Your task to perform on an android device: add a contact in the contacts app Image 0: 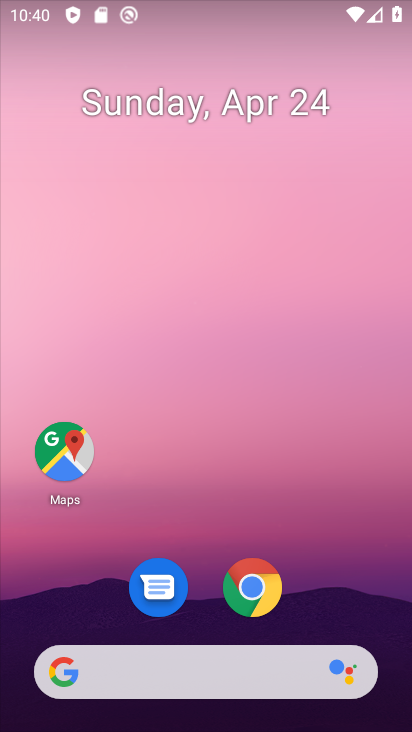
Step 0: drag from (322, 490) to (276, 168)
Your task to perform on an android device: add a contact in the contacts app Image 1: 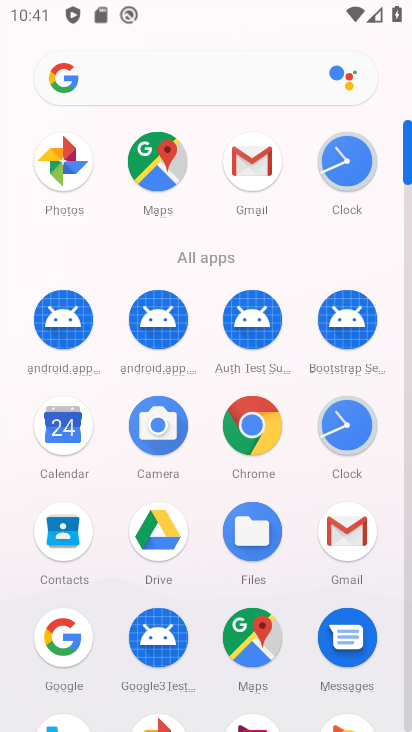
Step 1: click (72, 514)
Your task to perform on an android device: add a contact in the contacts app Image 2: 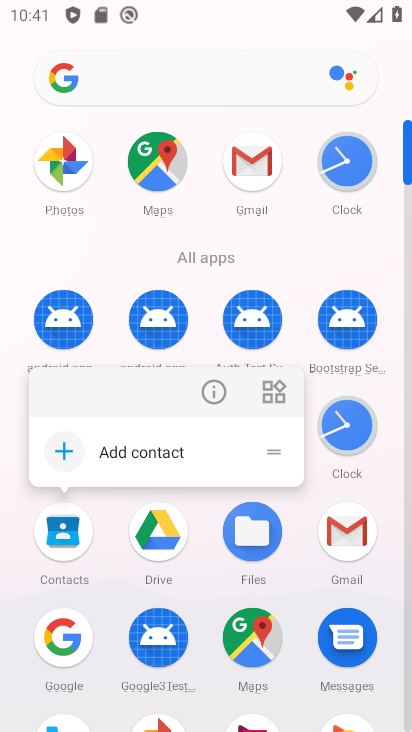
Step 2: click (61, 530)
Your task to perform on an android device: add a contact in the contacts app Image 3: 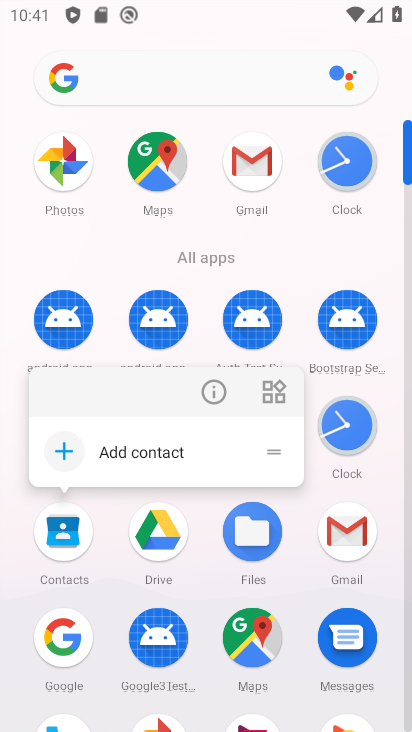
Step 3: click (74, 526)
Your task to perform on an android device: add a contact in the contacts app Image 4: 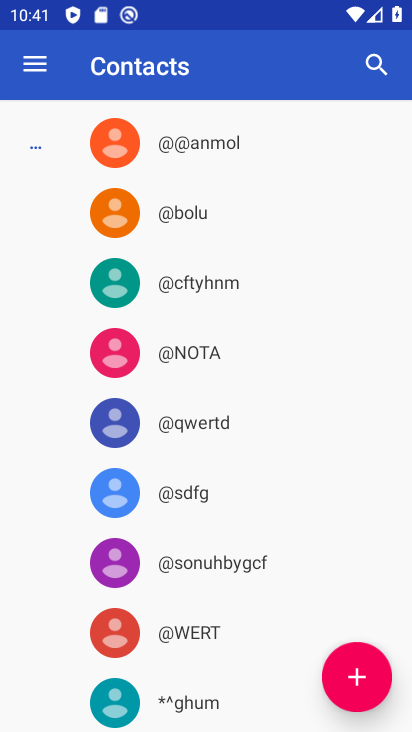
Step 4: click (348, 666)
Your task to perform on an android device: add a contact in the contacts app Image 5: 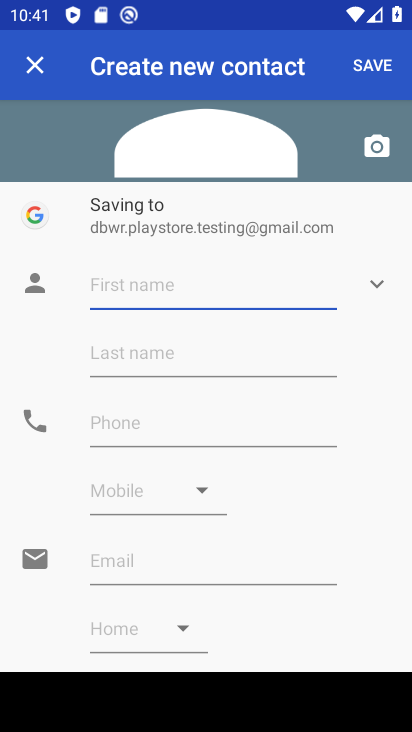
Step 5: click (250, 290)
Your task to perform on an android device: add a contact in the contacts app Image 6: 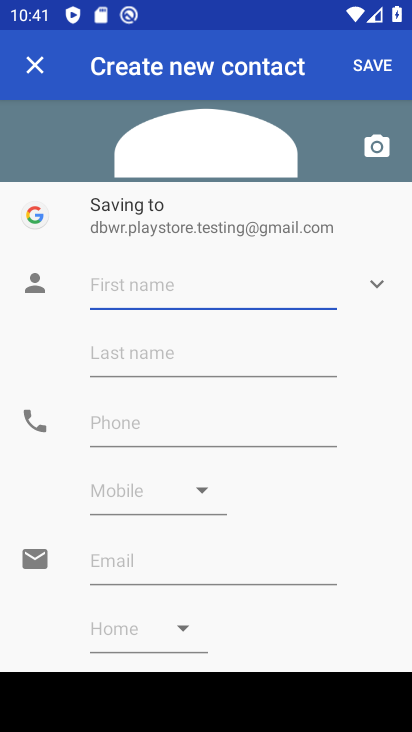
Step 6: type "hh"
Your task to perform on an android device: add a contact in the contacts app Image 7: 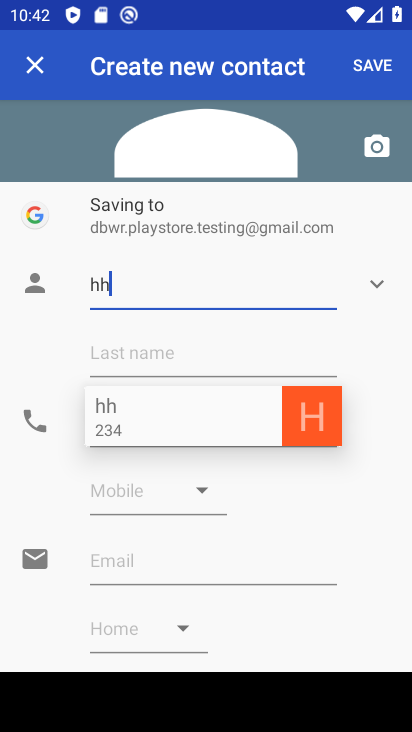
Step 7: type "k"
Your task to perform on an android device: add a contact in the contacts app Image 8: 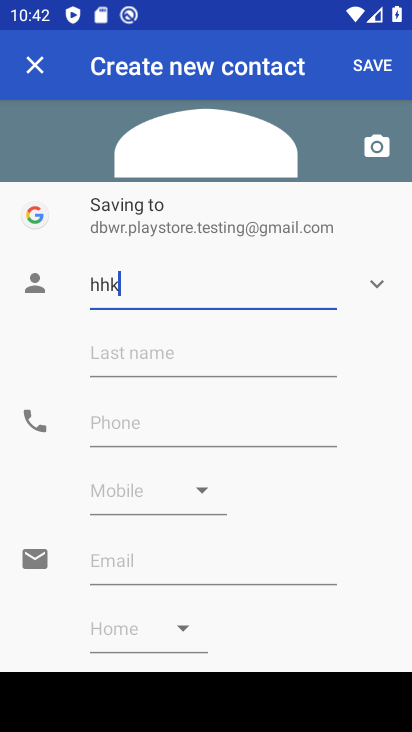
Step 8: click (378, 50)
Your task to perform on an android device: add a contact in the contacts app Image 9: 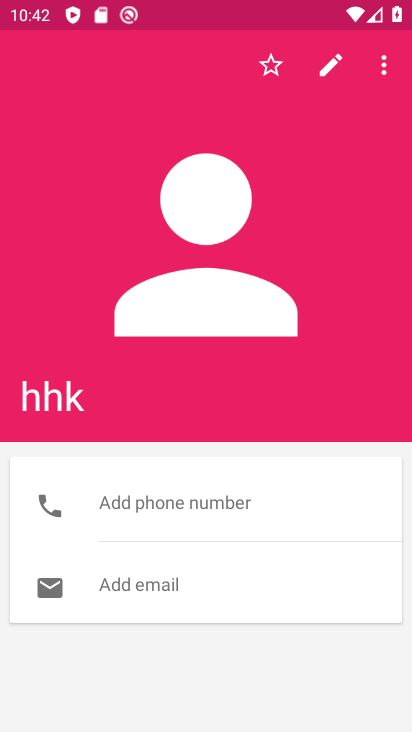
Step 9: task complete